Your task to perform on an android device: turn on showing notifications on the lock screen Image 0: 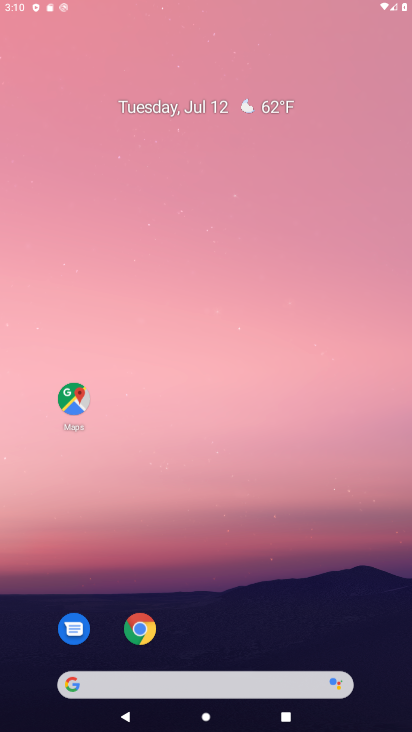
Step 0: press home button
Your task to perform on an android device: turn on showing notifications on the lock screen Image 1: 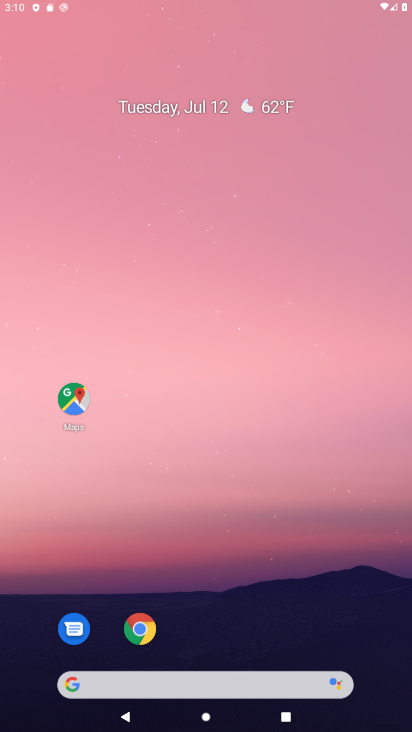
Step 1: click (131, 137)
Your task to perform on an android device: turn on showing notifications on the lock screen Image 2: 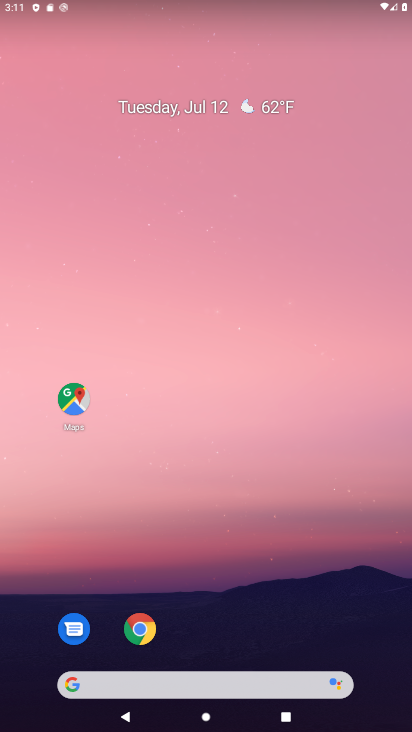
Step 2: drag from (234, 669) to (258, 145)
Your task to perform on an android device: turn on showing notifications on the lock screen Image 3: 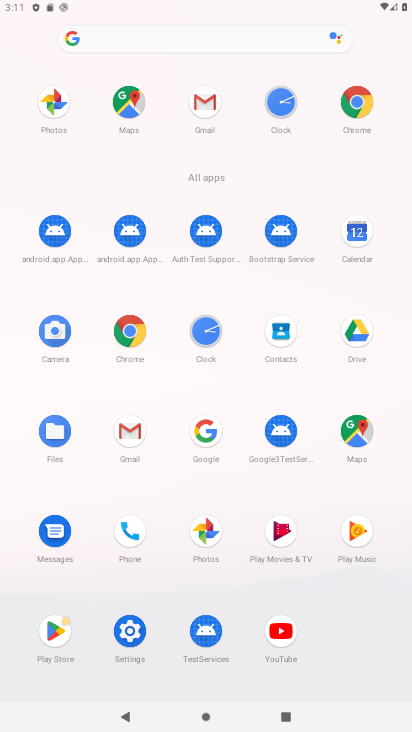
Step 3: click (137, 633)
Your task to perform on an android device: turn on showing notifications on the lock screen Image 4: 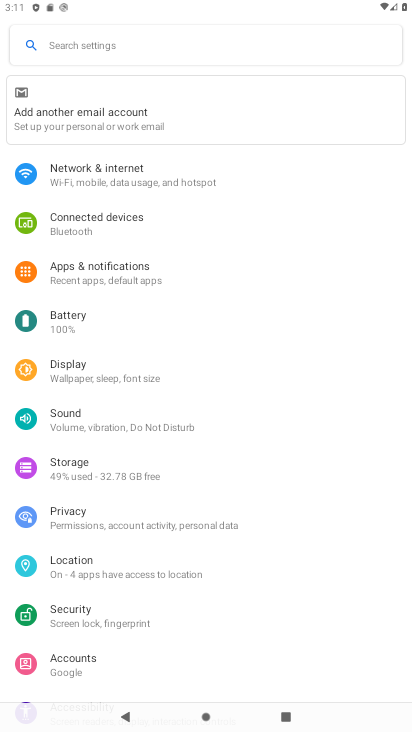
Step 4: click (115, 280)
Your task to perform on an android device: turn on showing notifications on the lock screen Image 5: 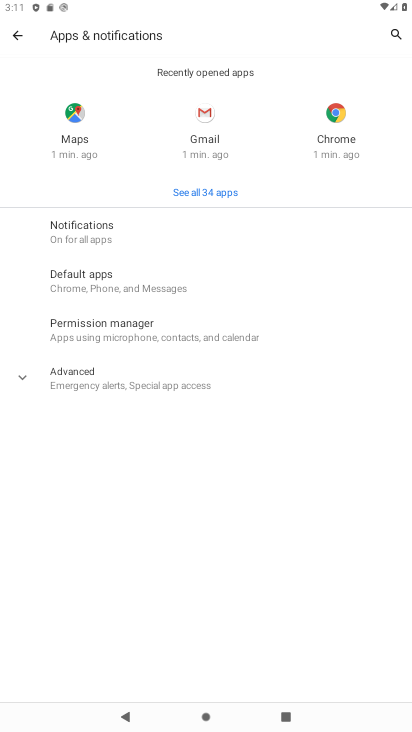
Step 5: click (90, 232)
Your task to perform on an android device: turn on showing notifications on the lock screen Image 6: 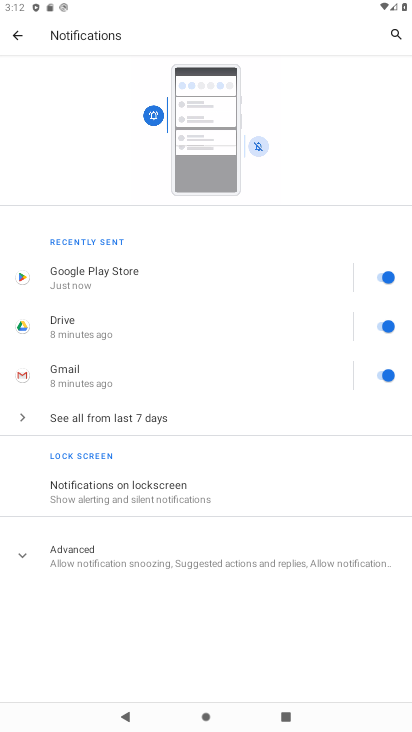
Step 6: click (169, 502)
Your task to perform on an android device: turn on showing notifications on the lock screen Image 7: 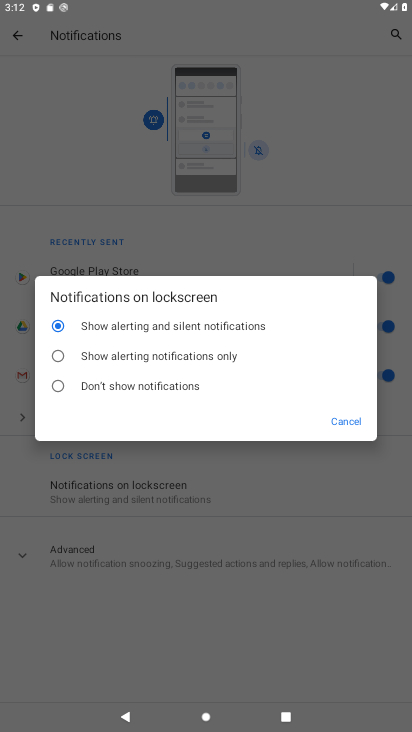
Step 7: click (90, 328)
Your task to perform on an android device: turn on showing notifications on the lock screen Image 8: 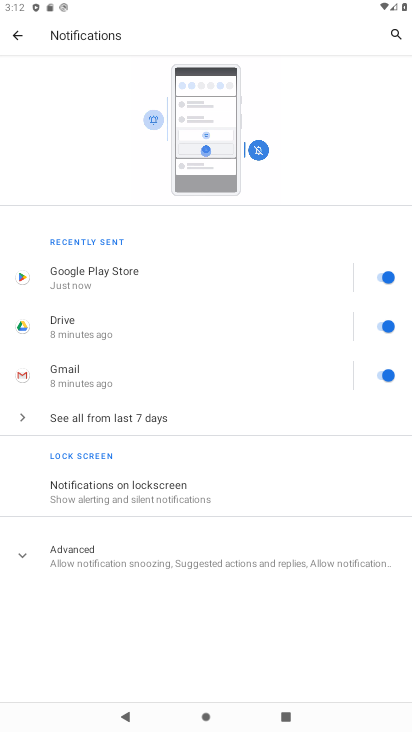
Step 8: task complete